Your task to perform on an android device: Open accessibility settings Image 0: 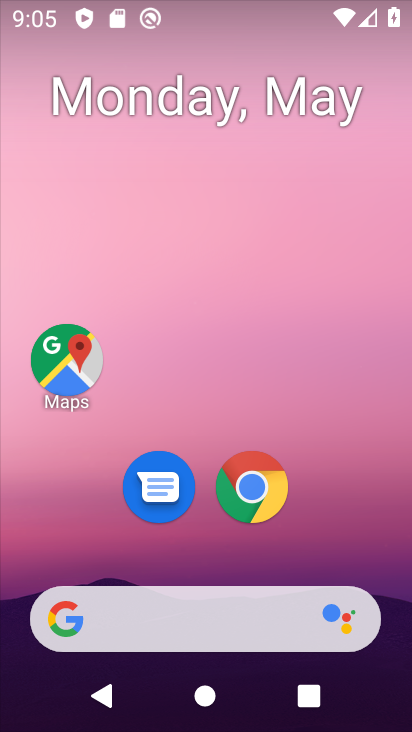
Step 0: drag from (198, 552) to (213, 74)
Your task to perform on an android device: Open accessibility settings Image 1: 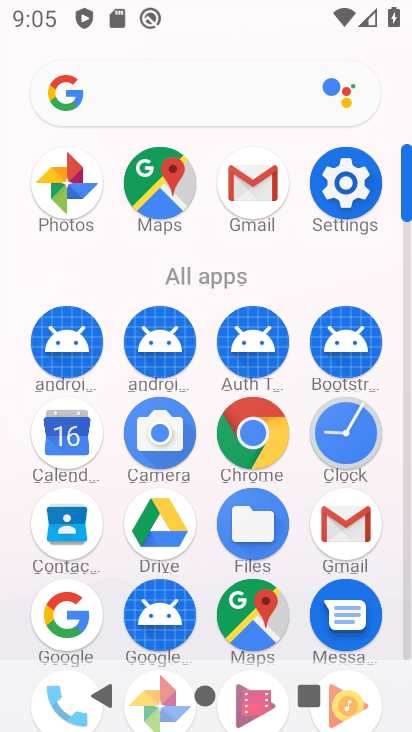
Step 1: click (337, 173)
Your task to perform on an android device: Open accessibility settings Image 2: 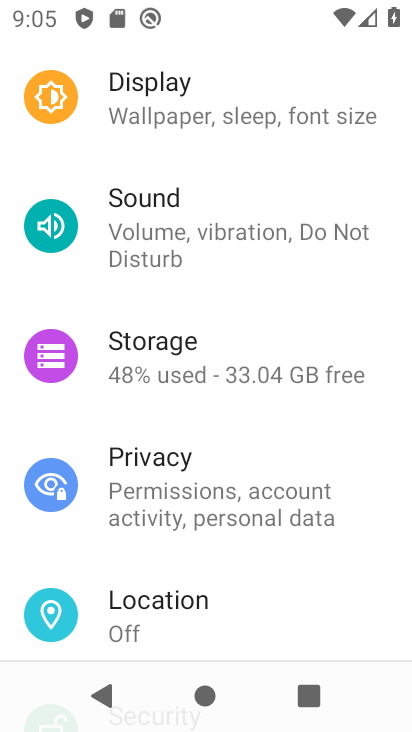
Step 2: drag from (216, 540) to (219, 44)
Your task to perform on an android device: Open accessibility settings Image 3: 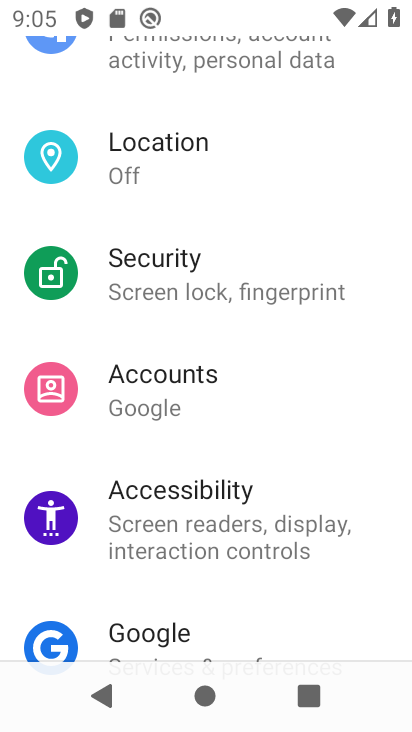
Step 3: click (166, 510)
Your task to perform on an android device: Open accessibility settings Image 4: 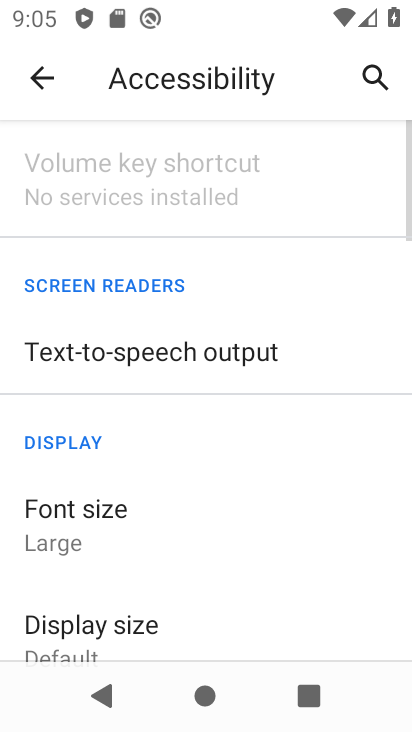
Step 4: task complete